Your task to perform on an android device: delete browsing data in the chrome app Image 0: 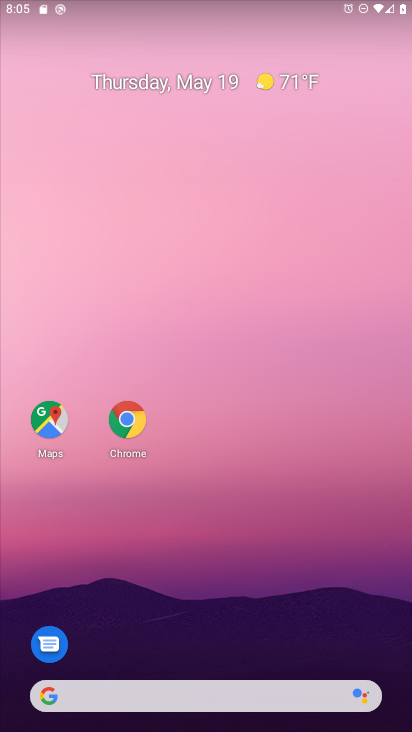
Step 0: click (127, 405)
Your task to perform on an android device: delete browsing data in the chrome app Image 1: 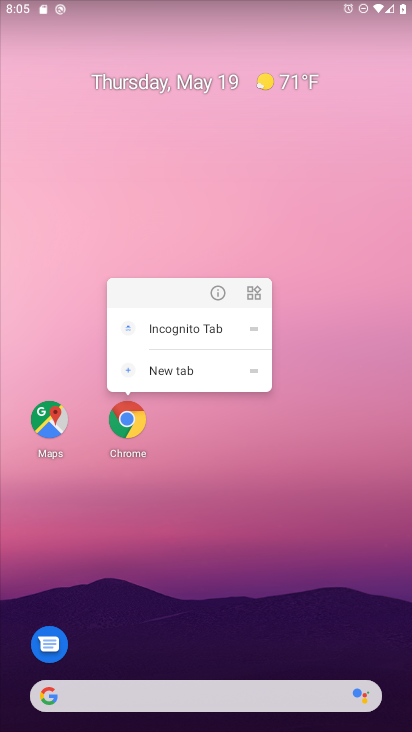
Step 1: click (128, 423)
Your task to perform on an android device: delete browsing data in the chrome app Image 2: 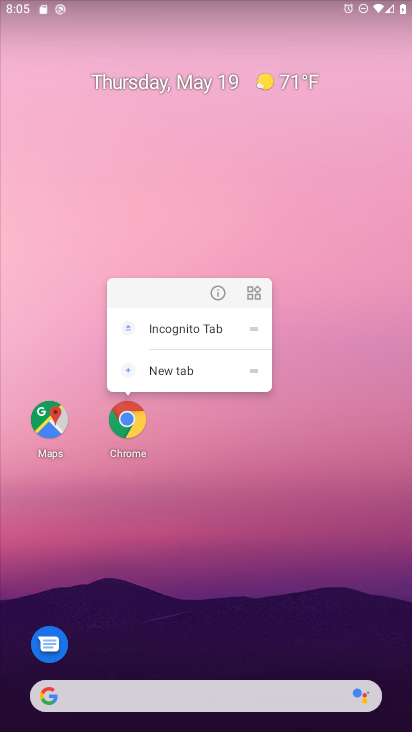
Step 2: click (127, 425)
Your task to perform on an android device: delete browsing data in the chrome app Image 3: 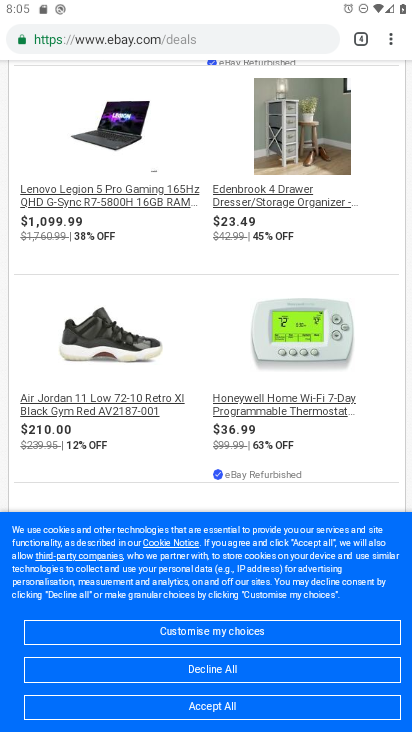
Step 3: click (393, 36)
Your task to perform on an android device: delete browsing data in the chrome app Image 4: 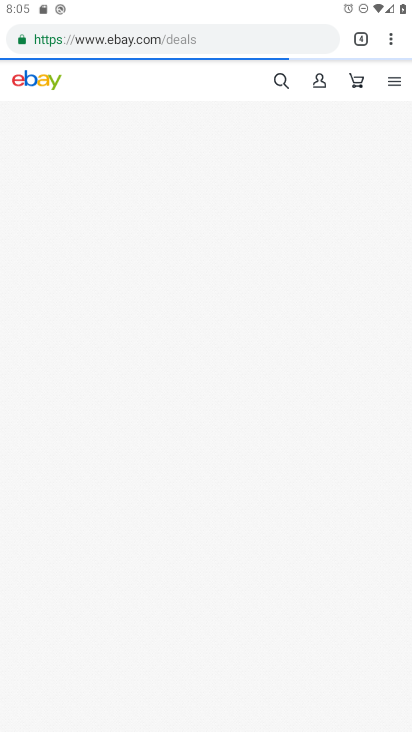
Step 4: click (393, 36)
Your task to perform on an android device: delete browsing data in the chrome app Image 5: 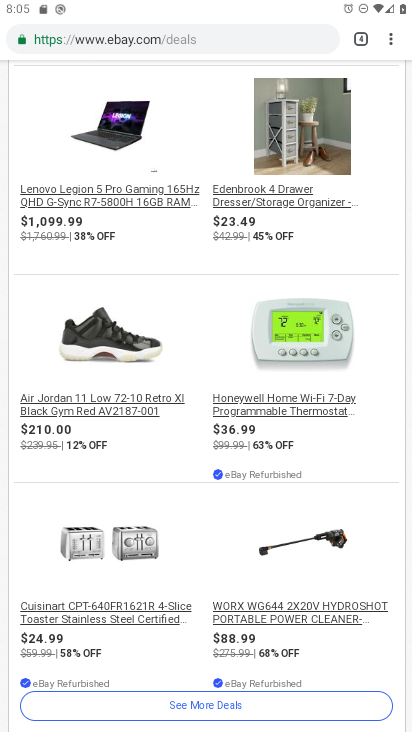
Step 5: drag from (381, 37) to (411, 319)
Your task to perform on an android device: delete browsing data in the chrome app Image 6: 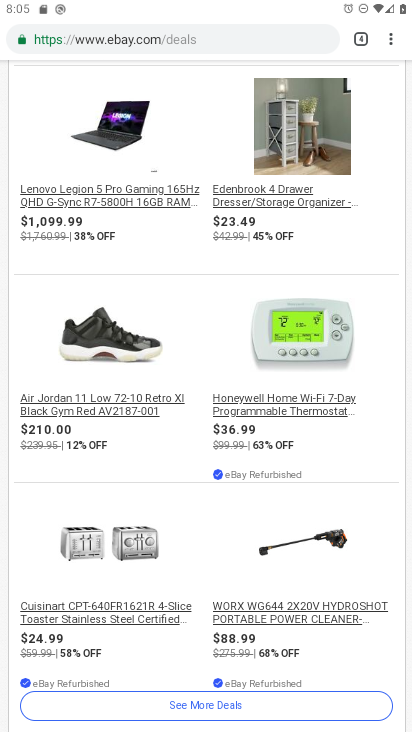
Step 6: drag from (303, 60) to (349, 598)
Your task to perform on an android device: delete browsing data in the chrome app Image 7: 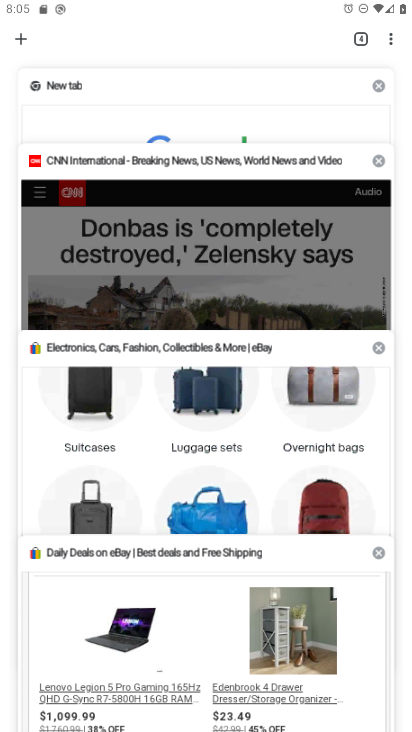
Step 7: click (15, 41)
Your task to perform on an android device: delete browsing data in the chrome app Image 8: 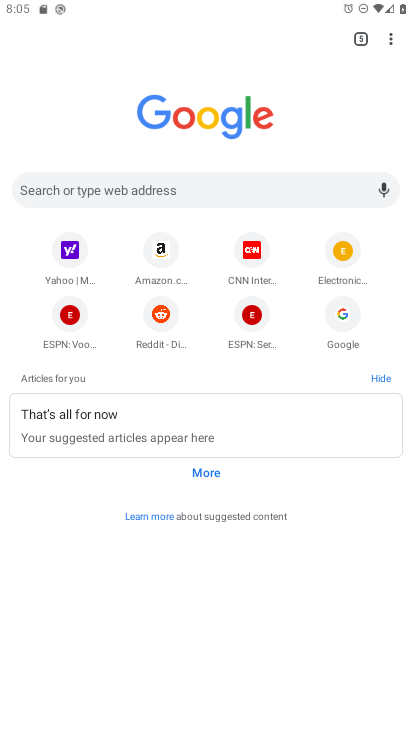
Step 8: click (390, 34)
Your task to perform on an android device: delete browsing data in the chrome app Image 9: 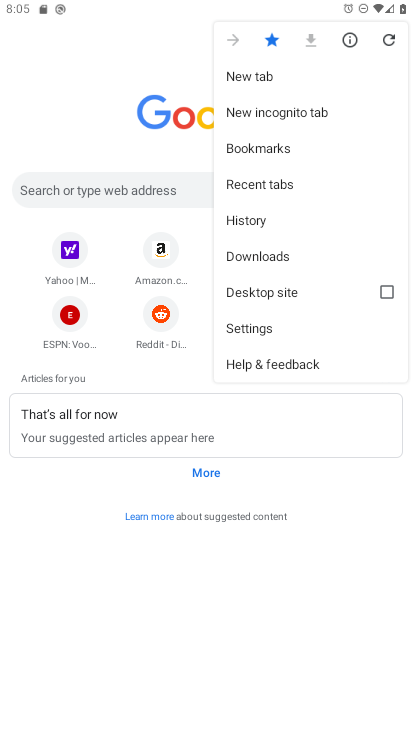
Step 9: click (259, 215)
Your task to perform on an android device: delete browsing data in the chrome app Image 10: 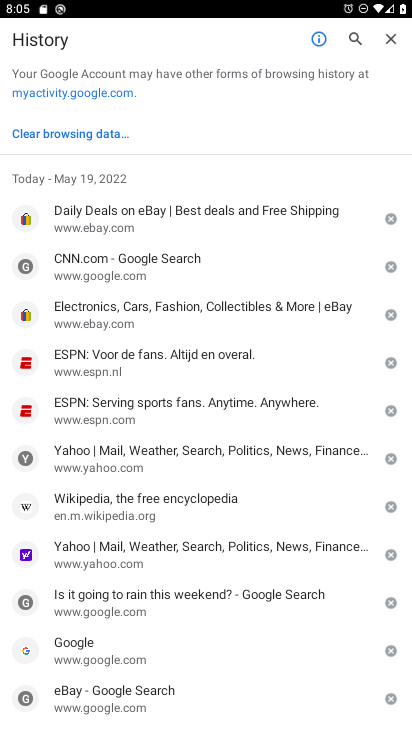
Step 10: click (97, 134)
Your task to perform on an android device: delete browsing data in the chrome app Image 11: 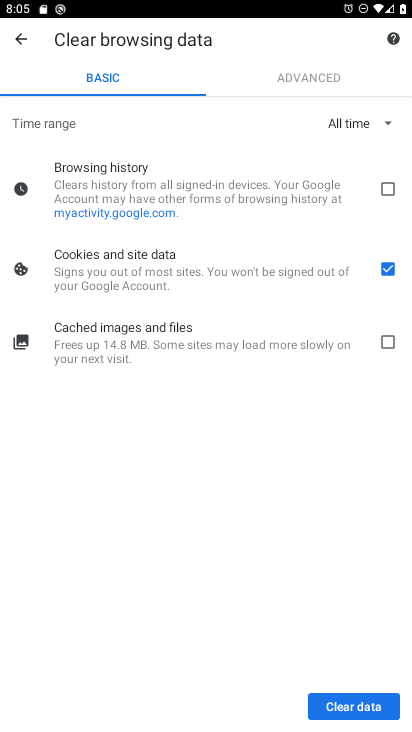
Step 11: click (387, 338)
Your task to perform on an android device: delete browsing data in the chrome app Image 12: 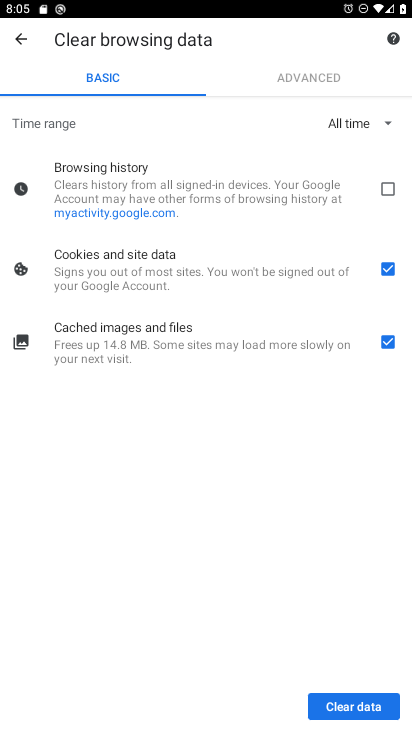
Step 12: click (383, 188)
Your task to perform on an android device: delete browsing data in the chrome app Image 13: 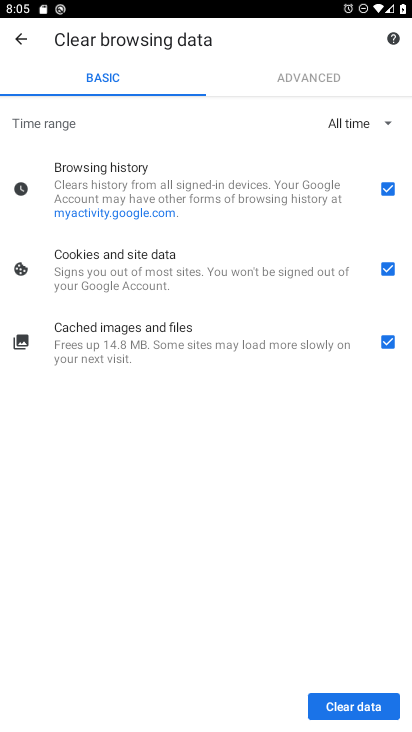
Step 13: click (337, 722)
Your task to perform on an android device: delete browsing data in the chrome app Image 14: 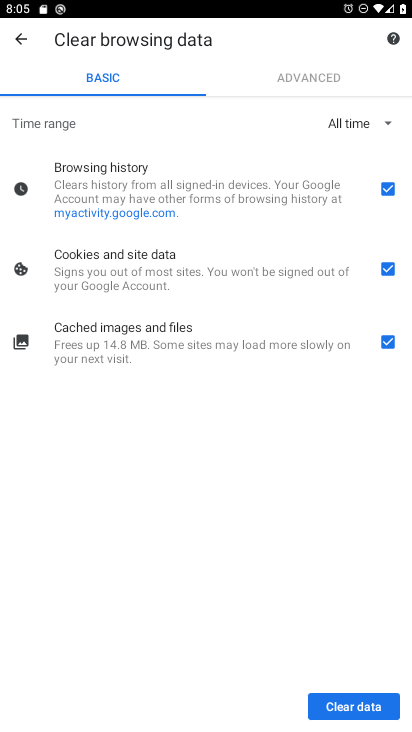
Step 14: click (335, 709)
Your task to perform on an android device: delete browsing data in the chrome app Image 15: 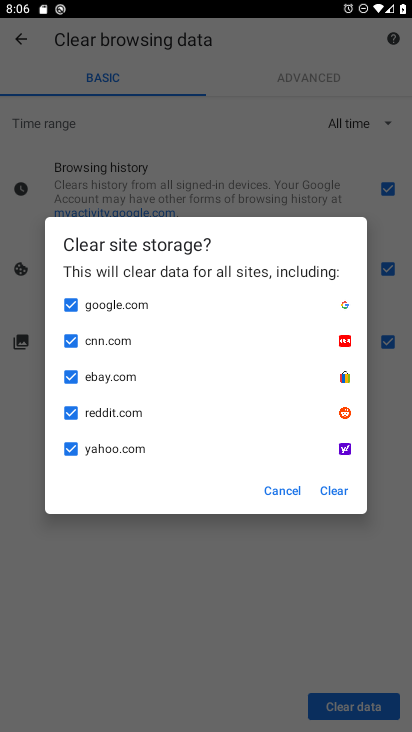
Step 15: click (339, 487)
Your task to perform on an android device: delete browsing data in the chrome app Image 16: 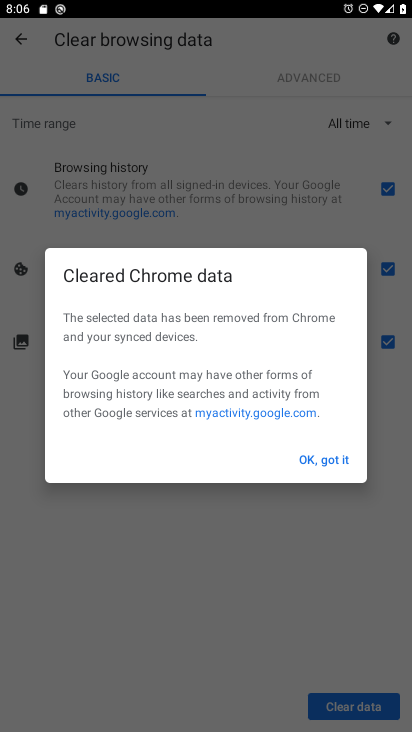
Step 16: click (332, 461)
Your task to perform on an android device: delete browsing data in the chrome app Image 17: 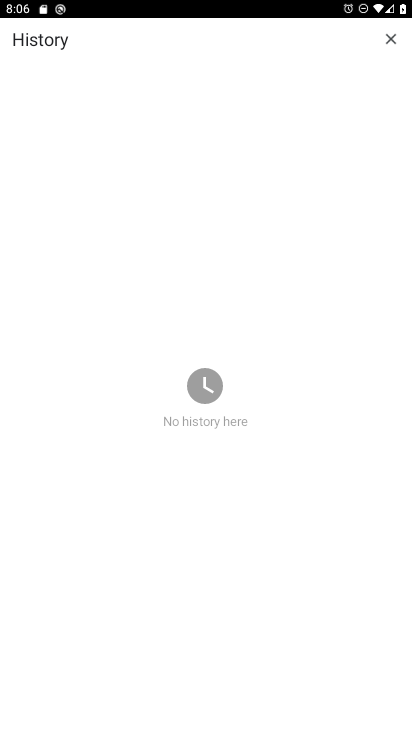
Step 17: task complete